Your task to perform on an android device: Go to network settings Image 0: 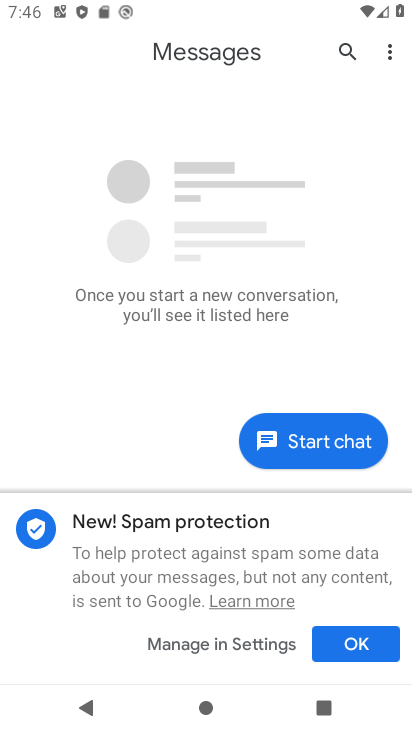
Step 0: press home button
Your task to perform on an android device: Go to network settings Image 1: 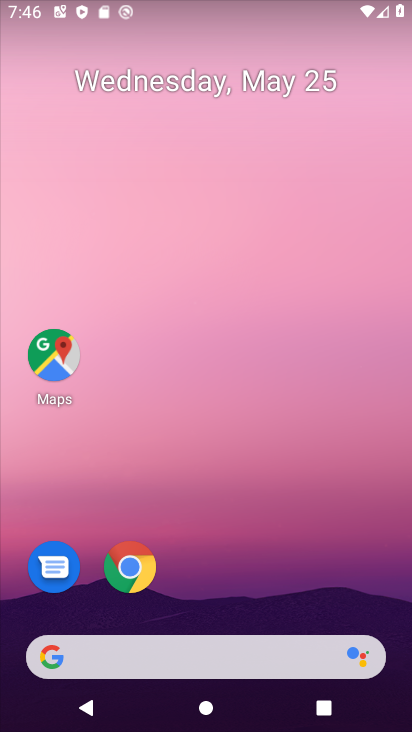
Step 1: drag from (251, 592) to (264, 120)
Your task to perform on an android device: Go to network settings Image 2: 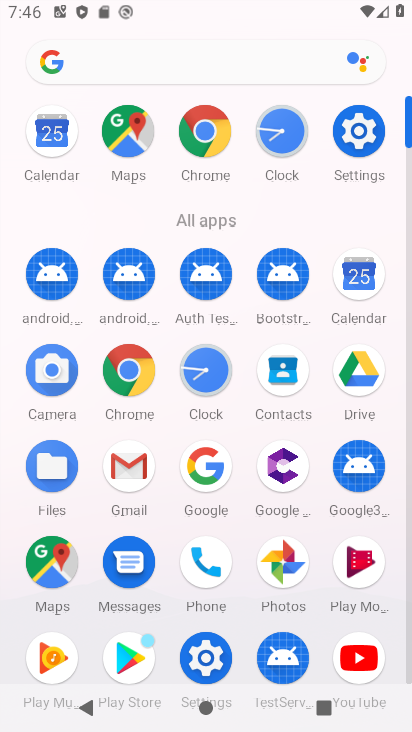
Step 2: click (347, 149)
Your task to perform on an android device: Go to network settings Image 3: 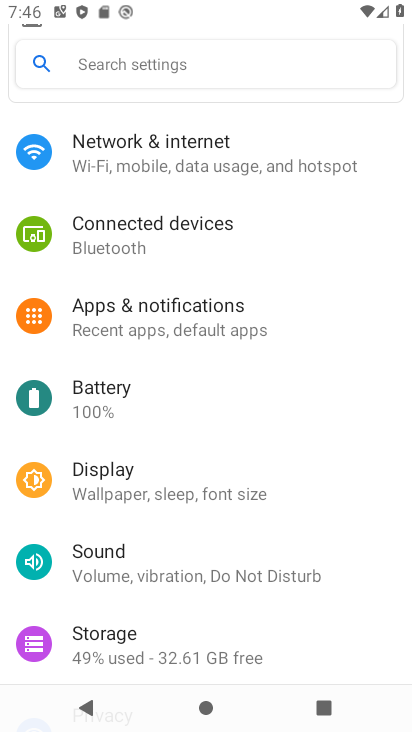
Step 3: click (202, 136)
Your task to perform on an android device: Go to network settings Image 4: 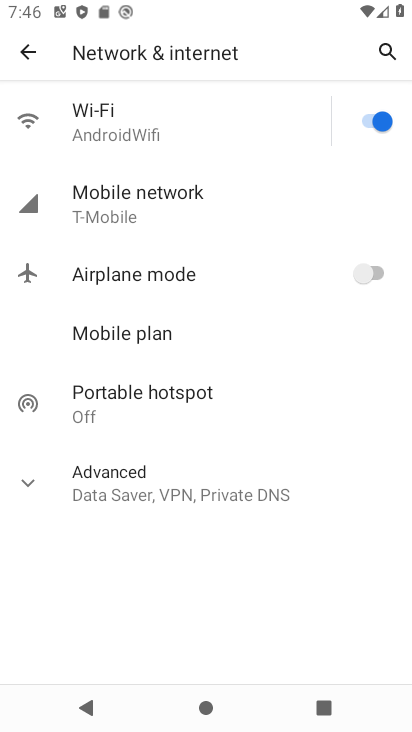
Step 4: task complete